Your task to perform on an android device: Go to wifi settings Image 0: 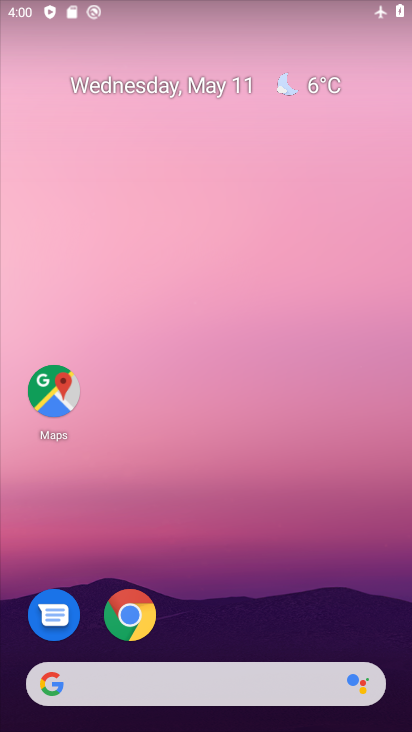
Step 0: drag from (340, 6) to (404, 612)
Your task to perform on an android device: Go to wifi settings Image 1: 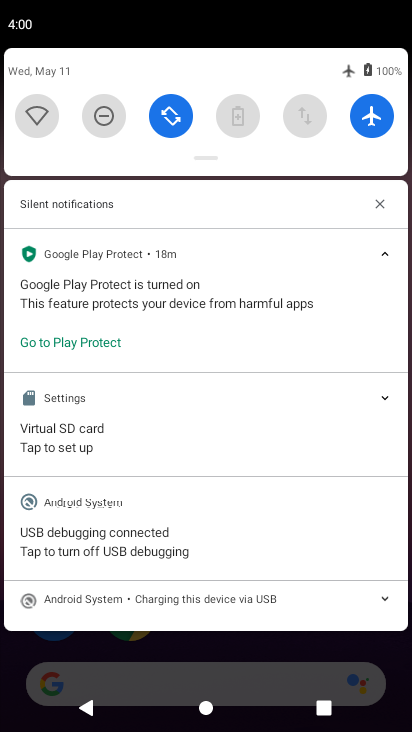
Step 1: click (35, 113)
Your task to perform on an android device: Go to wifi settings Image 2: 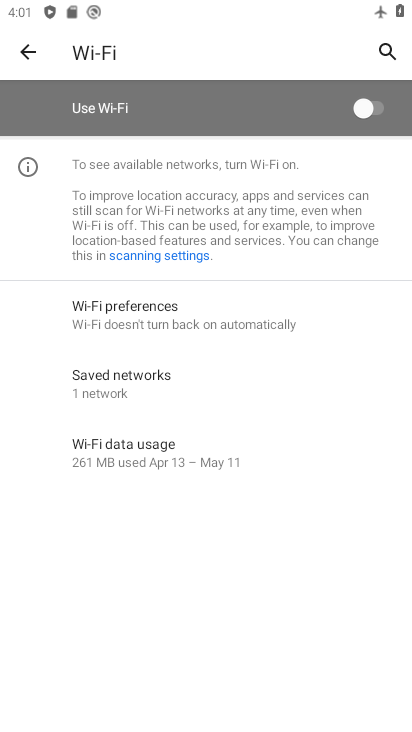
Step 2: task complete